Your task to perform on an android device: turn on airplane mode Image 0: 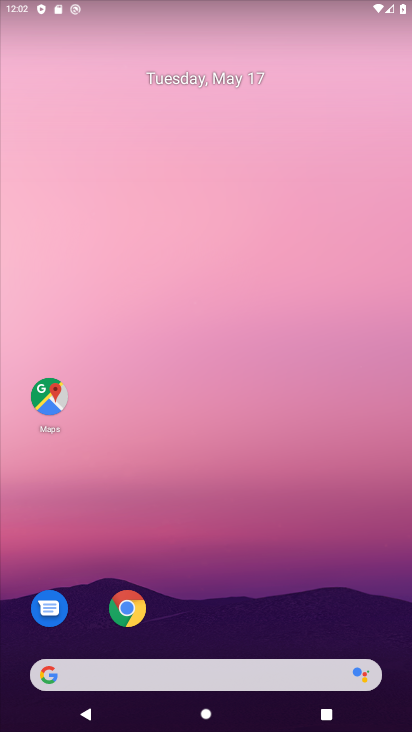
Step 0: drag from (237, 600) to (202, 29)
Your task to perform on an android device: turn on airplane mode Image 1: 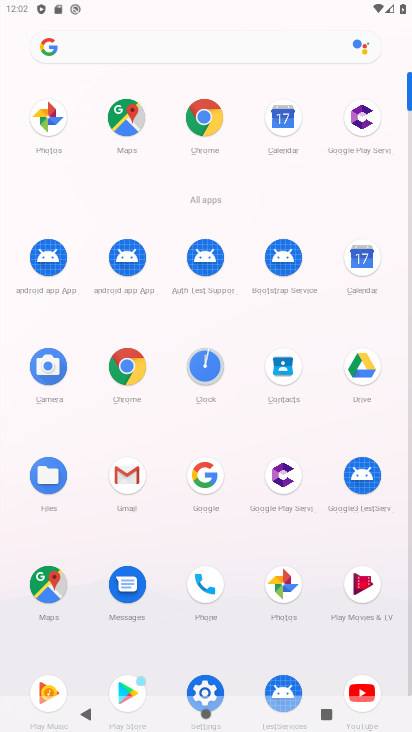
Step 1: click (209, 688)
Your task to perform on an android device: turn on airplane mode Image 2: 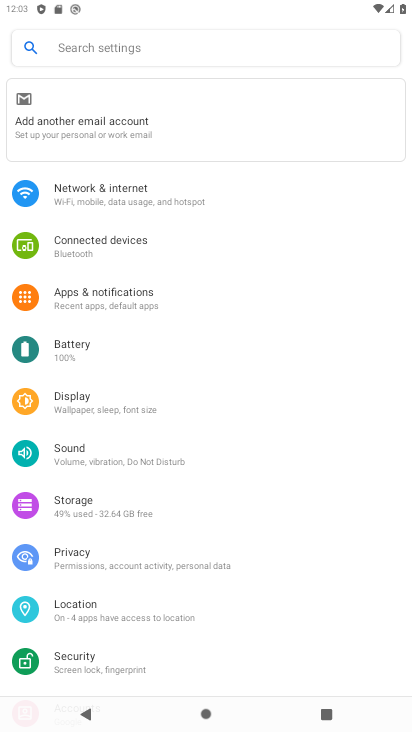
Step 2: click (102, 197)
Your task to perform on an android device: turn on airplane mode Image 3: 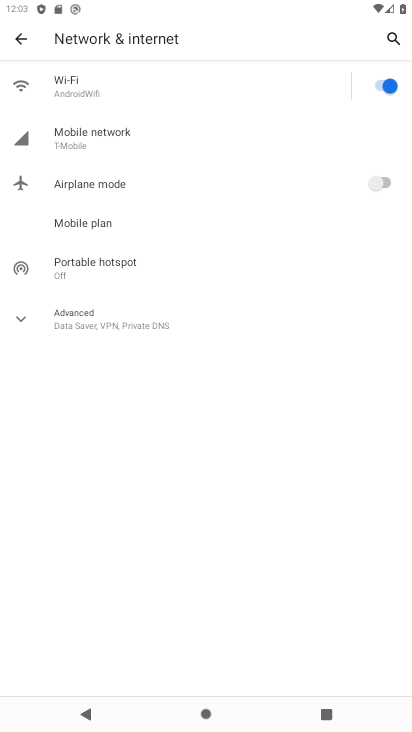
Step 3: click (390, 186)
Your task to perform on an android device: turn on airplane mode Image 4: 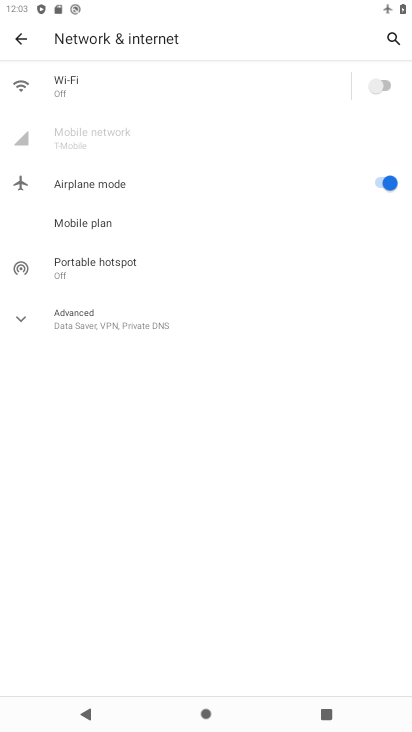
Step 4: task complete